Your task to perform on an android device: all mails in gmail Image 0: 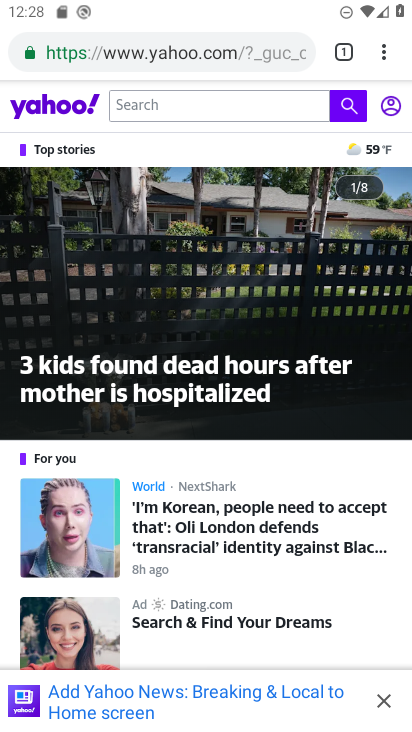
Step 0: press home button
Your task to perform on an android device: all mails in gmail Image 1: 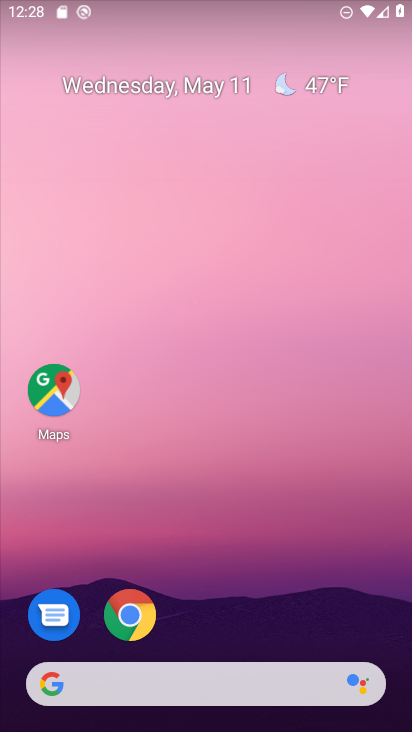
Step 1: drag from (254, 543) to (251, 115)
Your task to perform on an android device: all mails in gmail Image 2: 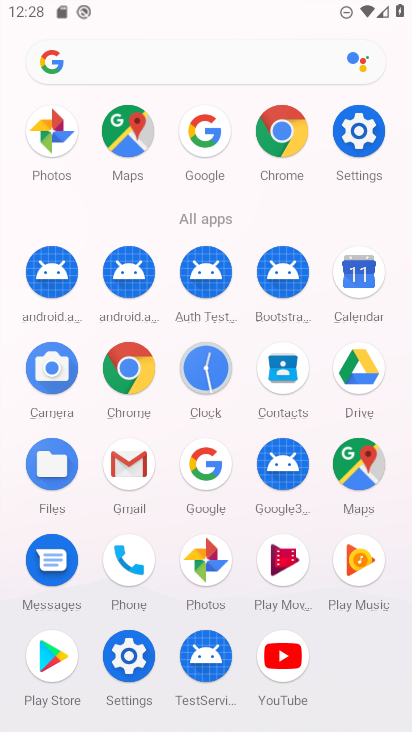
Step 2: click (132, 473)
Your task to perform on an android device: all mails in gmail Image 3: 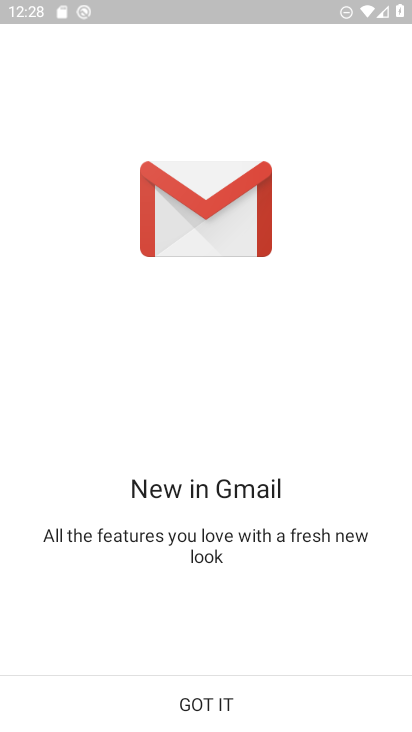
Step 3: click (209, 702)
Your task to perform on an android device: all mails in gmail Image 4: 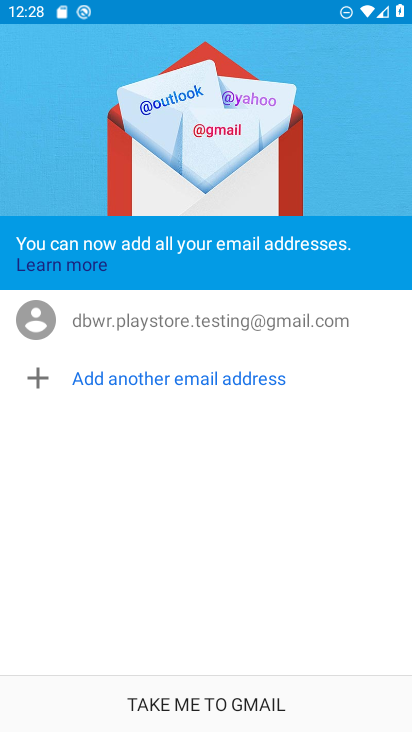
Step 4: click (210, 702)
Your task to perform on an android device: all mails in gmail Image 5: 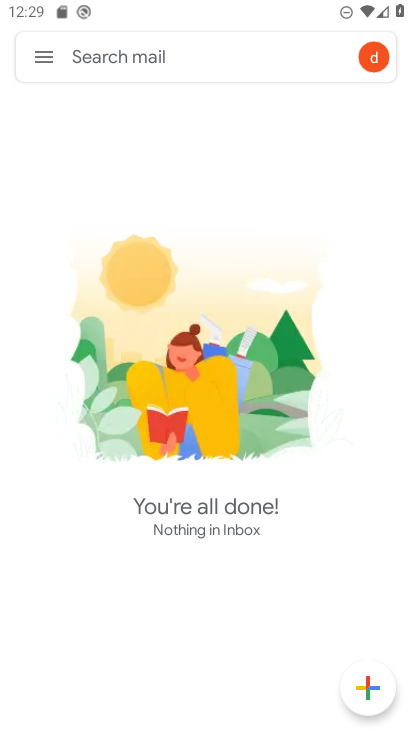
Step 5: click (50, 44)
Your task to perform on an android device: all mails in gmail Image 6: 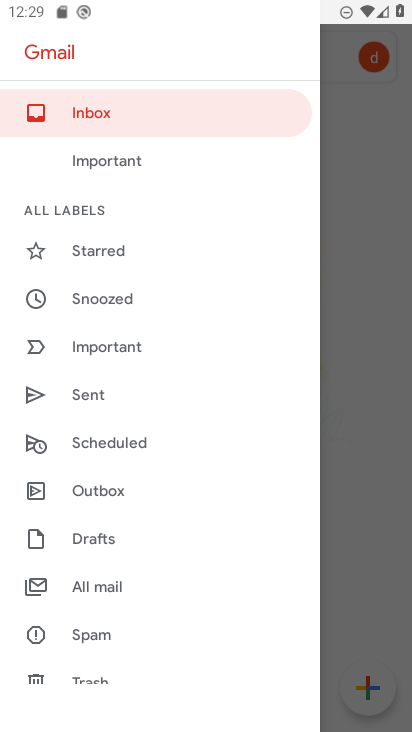
Step 6: drag from (179, 576) to (152, 195)
Your task to perform on an android device: all mails in gmail Image 7: 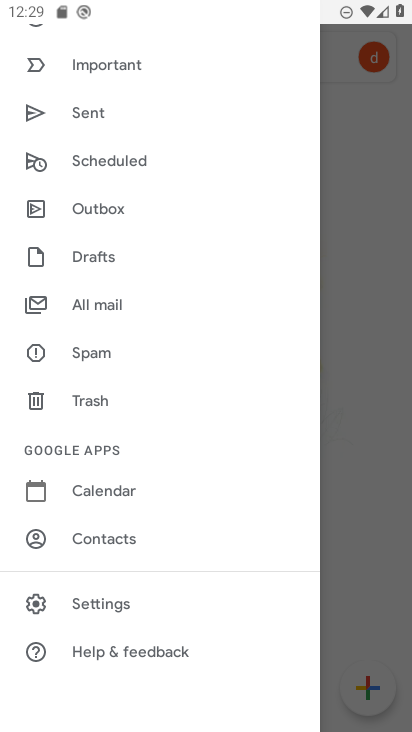
Step 7: click (107, 294)
Your task to perform on an android device: all mails in gmail Image 8: 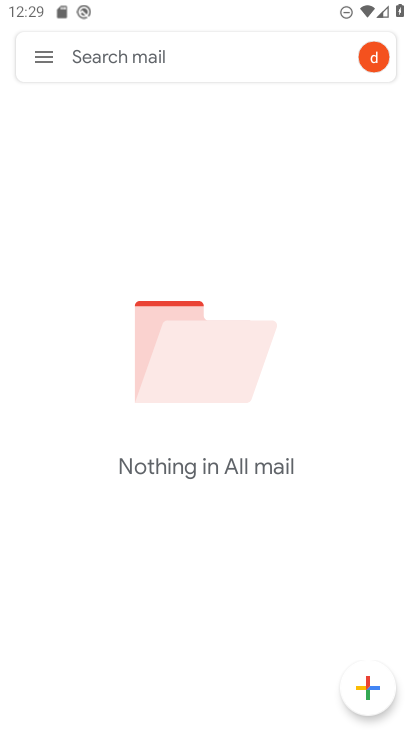
Step 8: task complete